Your task to perform on an android device: move an email to a new category in the gmail app Image 0: 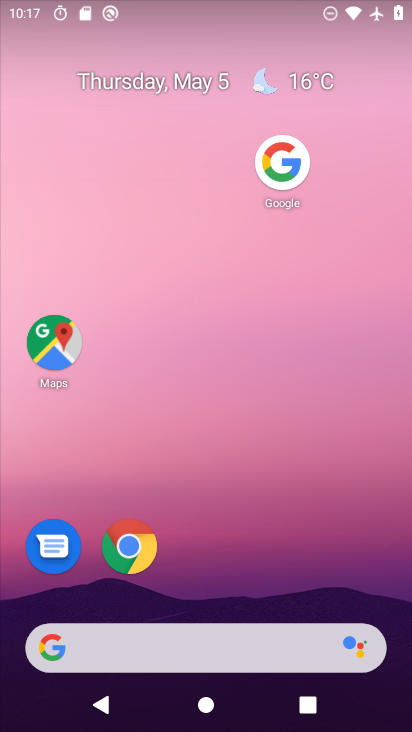
Step 0: drag from (152, 646) to (349, 105)
Your task to perform on an android device: move an email to a new category in the gmail app Image 1: 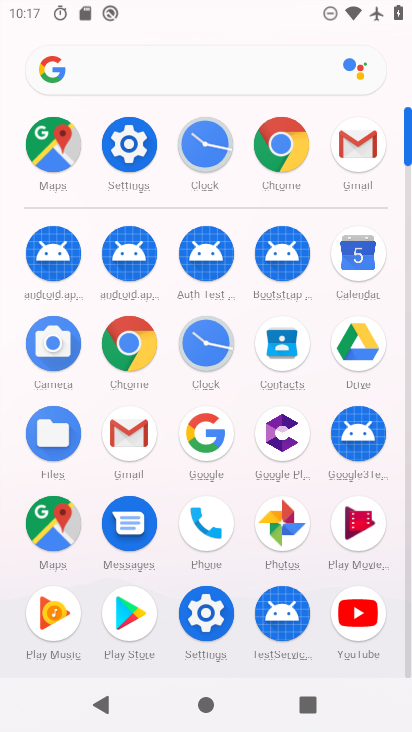
Step 1: click (355, 151)
Your task to perform on an android device: move an email to a new category in the gmail app Image 2: 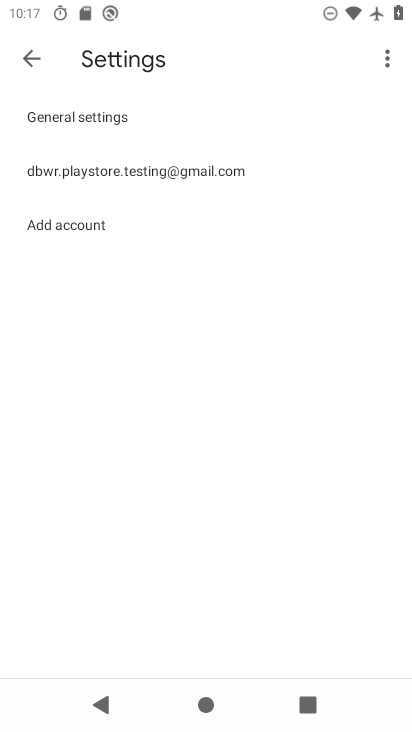
Step 2: click (31, 62)
Your task to perform on an android device: move an email to a new category in the gmail app Image 3: 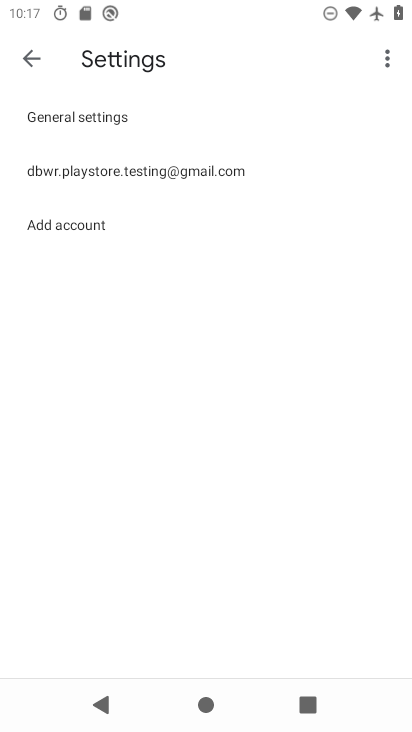
Step 3: click (31, 62)
Your task to perform on an android device: move an email to a new category in the gmail app Image 4: 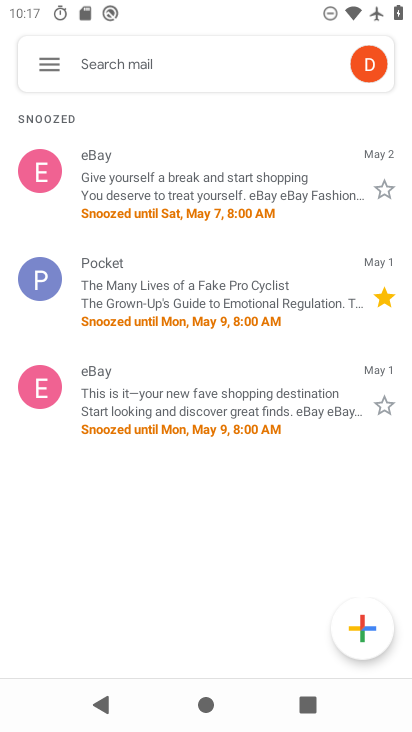
Step 4: click (199, 181)
Your task to perform on an android device: move an email to a new category in the gmail app Image 5: 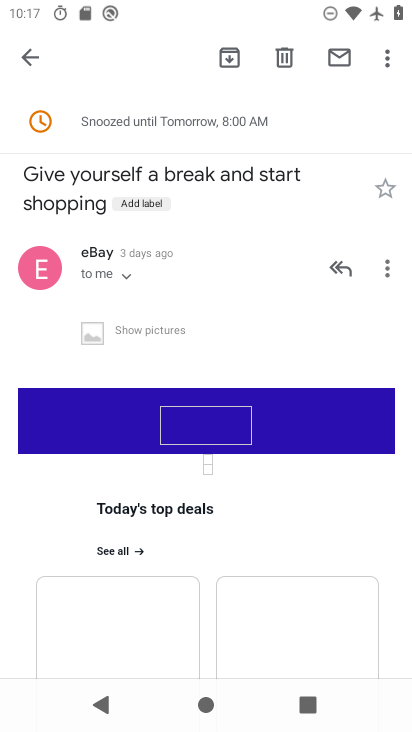
Step 5: click (26, 62)
Your task to perform on an android device: move an email to a new category in the gmail app Image 6: 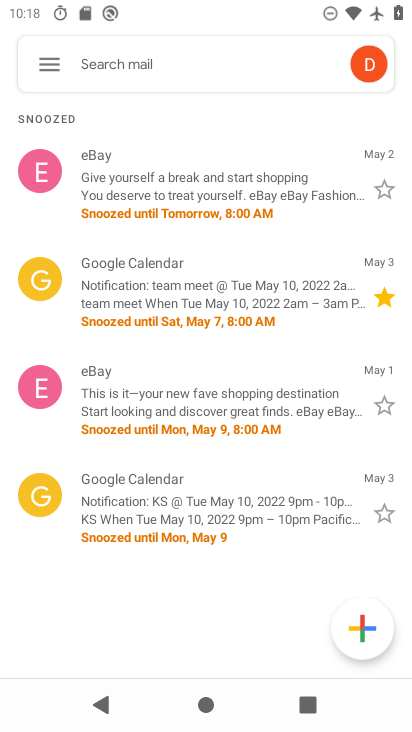
Step 6: click (49, 170)
Your task to perform on an android device: move an email to a new category in the gmail app Image 7: 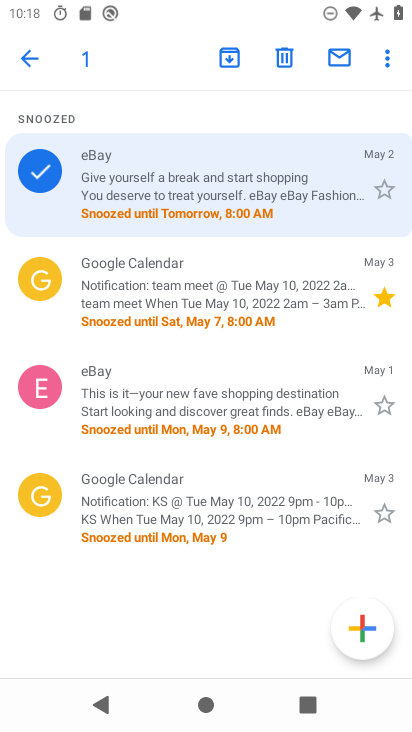
Step 7: click (393, 61)
Your task to perform on an android device: move an email to a new category in the gmail app Image 8: 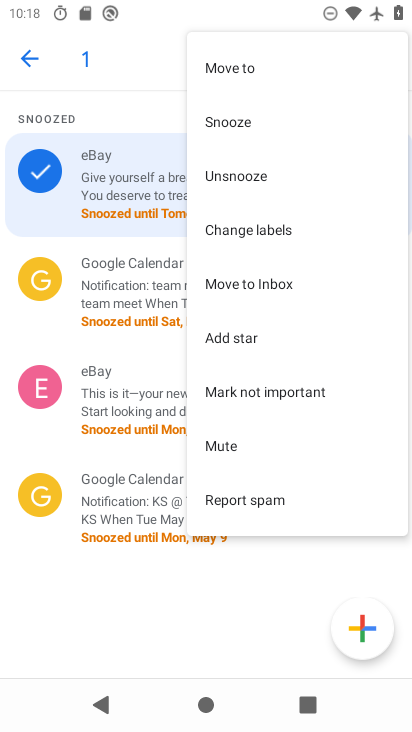
Step 8: click (238, 390)
Your task to perform on an android device: move an email to a new category in the gmail app Image 9: 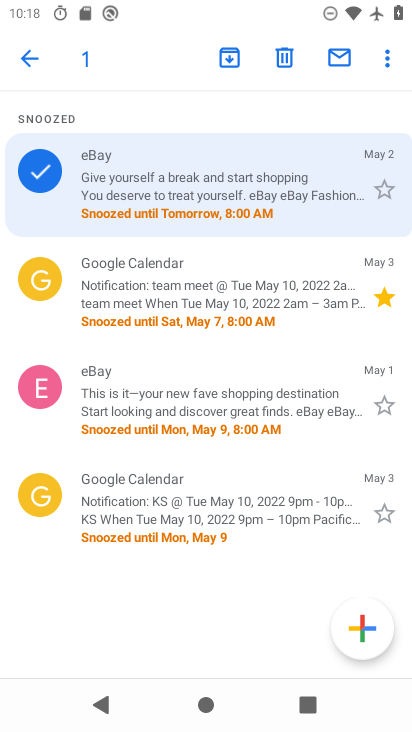
Step 9: task complete